Your task to perform on an android device: Go to Wikipedia Image 0: 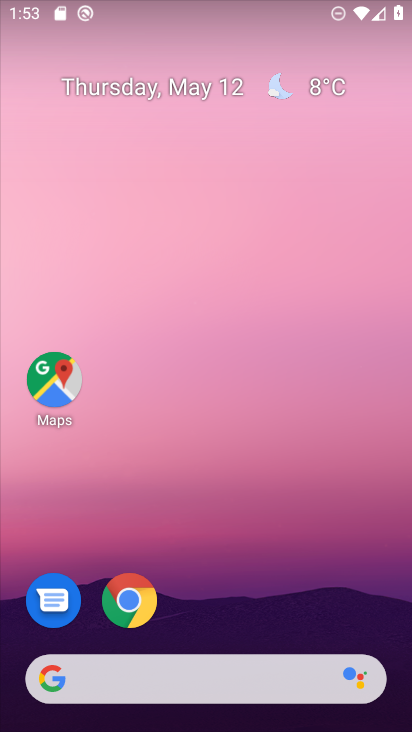
Step 0: drag from (223, 721) to (220, 134)
Your task to perform on an android device: Go to Wikipedia Image 1: 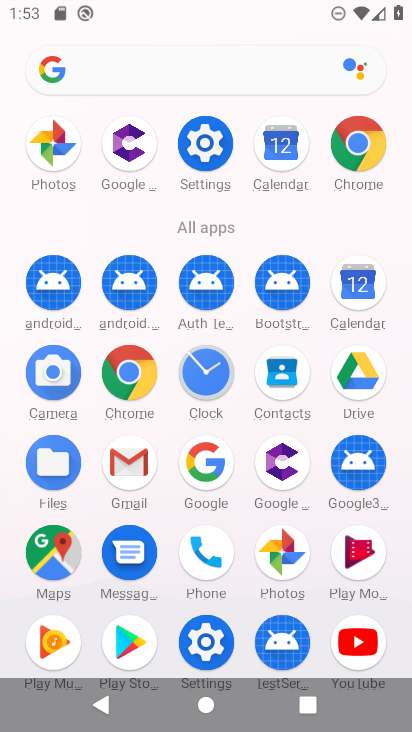
Step 1: click (356, 140)
Your task to perform on an android device: Go to Wikipedia Image 2: 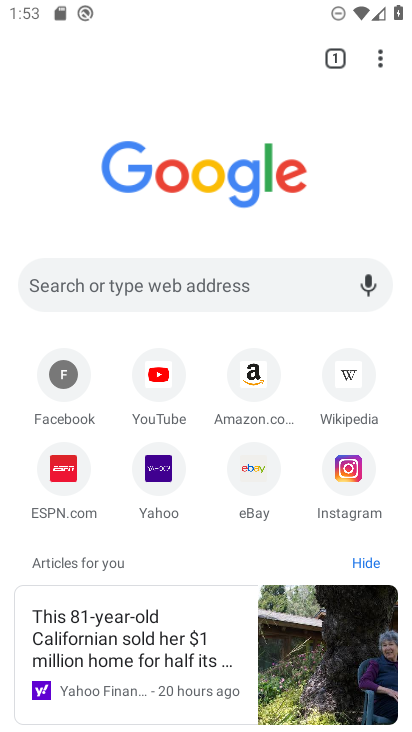
Step 2: click (353, 366)
Your task to perform on an android device: Go to Wikipedia Image 3: 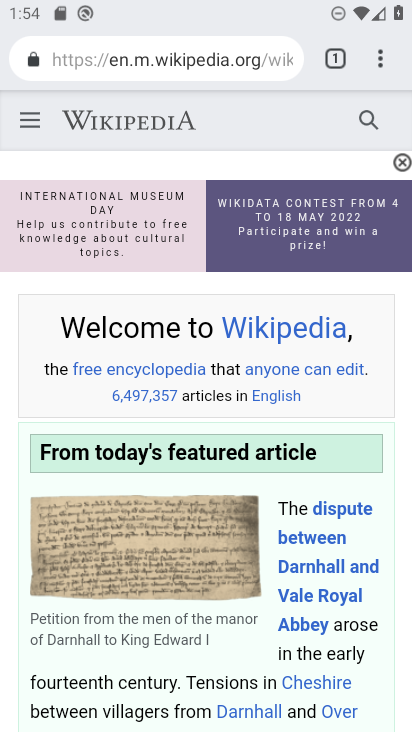
Step 3: task complete